Your task to perform on an android device: open app "Fetch Rewards" Image 0: 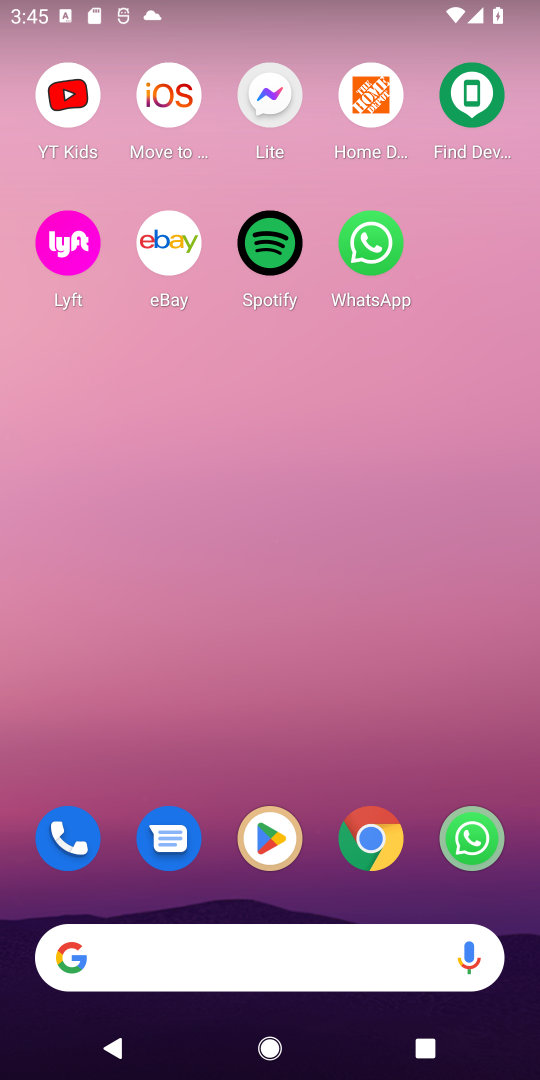
Step 0: press home button
Your task to perform on an android device: open app "Fetch Rewards" Image 1: 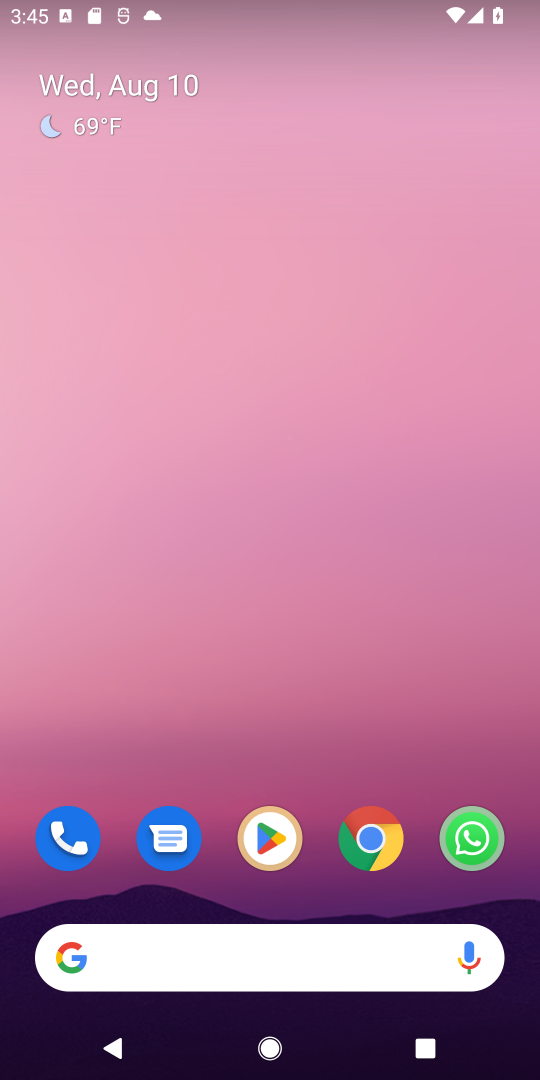
Step 1: click (276, 830)
Your task to perform on an android device: open app "Fetch Rewards" Image 2: 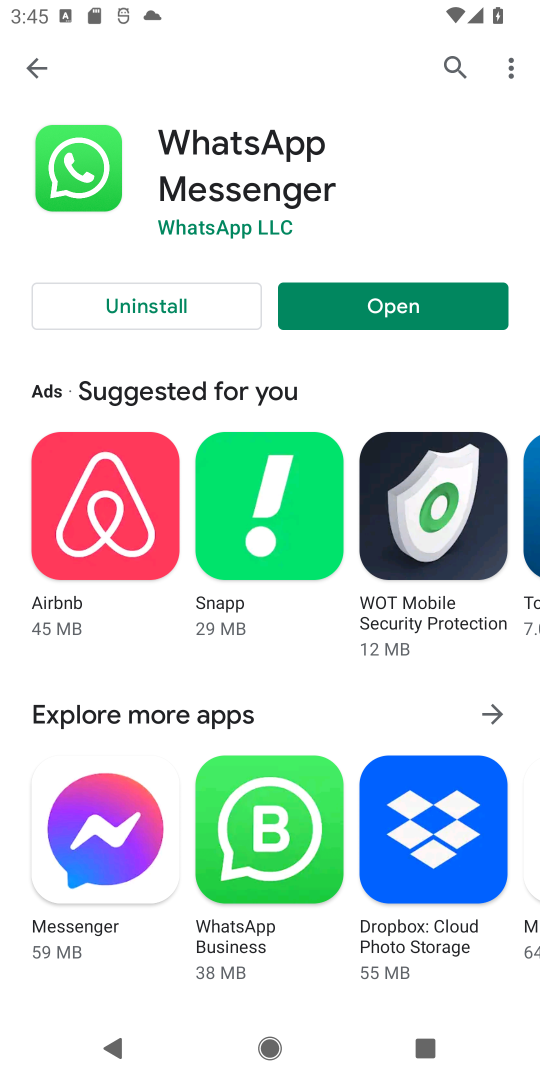
Step 2: click (449, 62)
Your task to perform on an android device: open app "Fetch Rewards" Image 3: 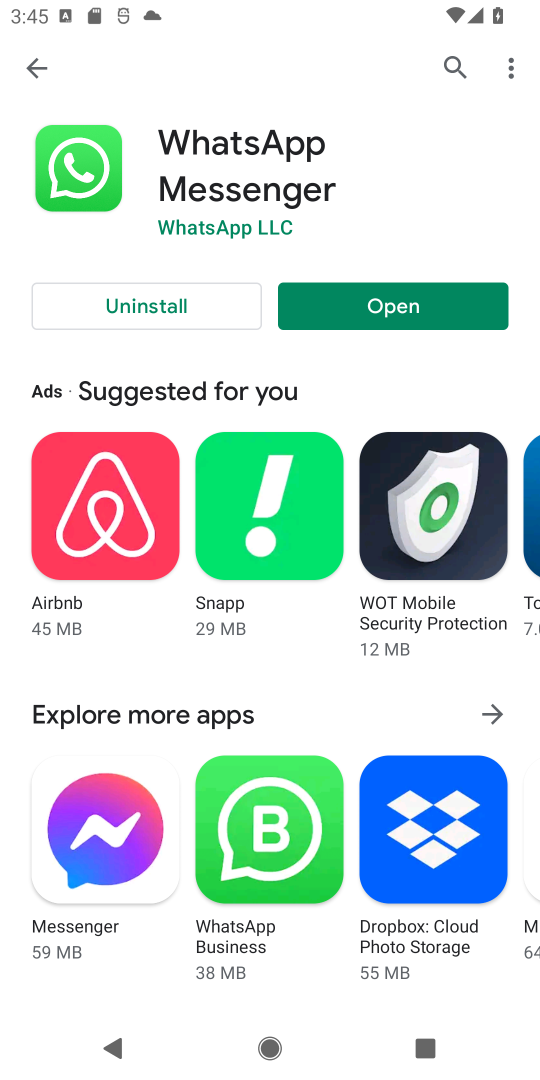
Step 3: click (449, 64)
Your task to perform on an android device: open app "Fetch Rewards" Image 4: 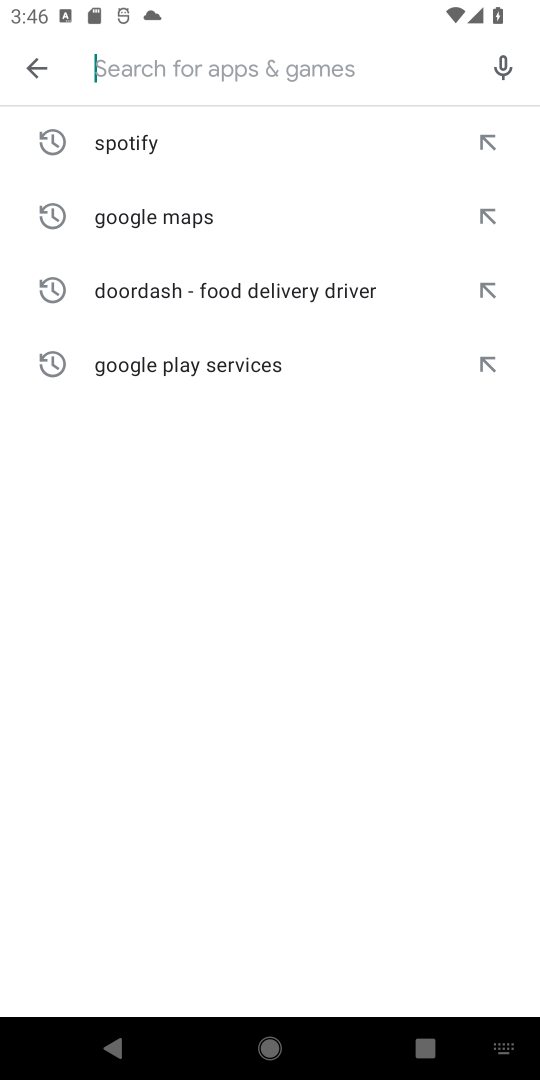
Step 4: type "Fetch Rewards"
Your task to perform on an android device: open app "Fetch Rewards" Image 5: 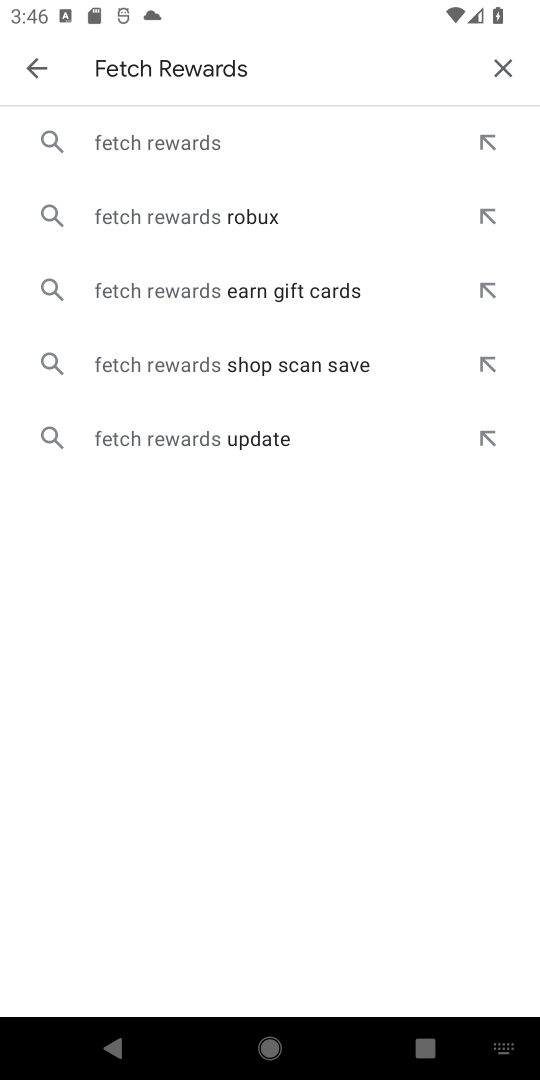
Step 5: click (172, 139)
Your task to perform on an android device: open app "Fetch Rewards" Image 6: 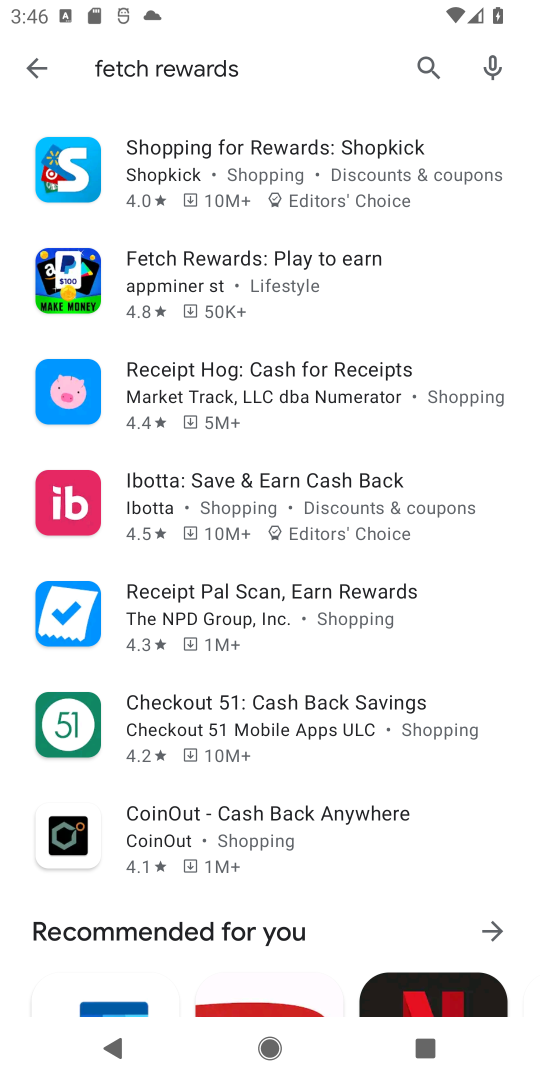
Step 6: click (225, 279)
Your task to perform on an android device: open app "Fetch Rewards" Image 7: 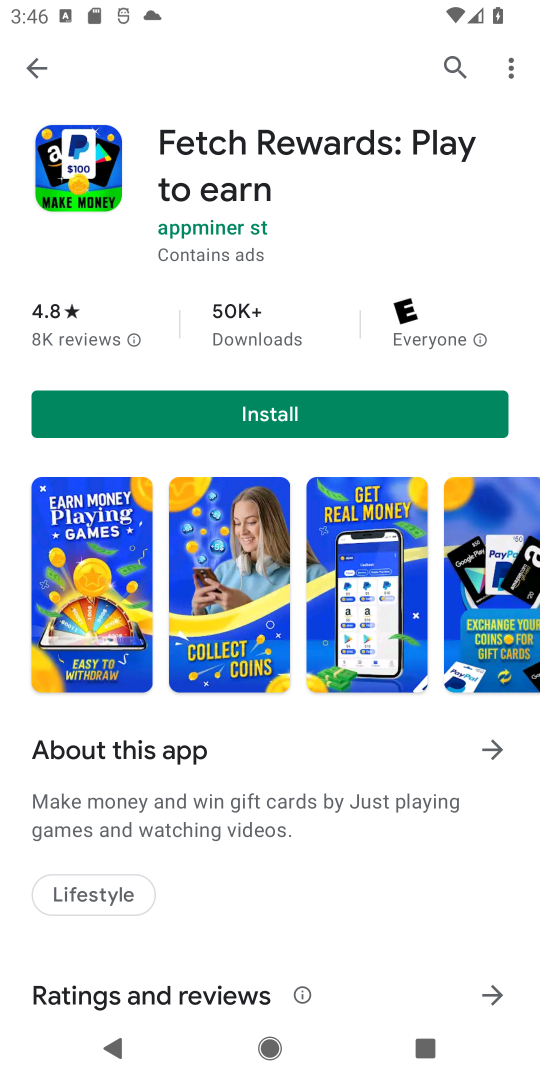
Step 7: task complete